Your task to perform on an android device: Show me recent news Image 0: 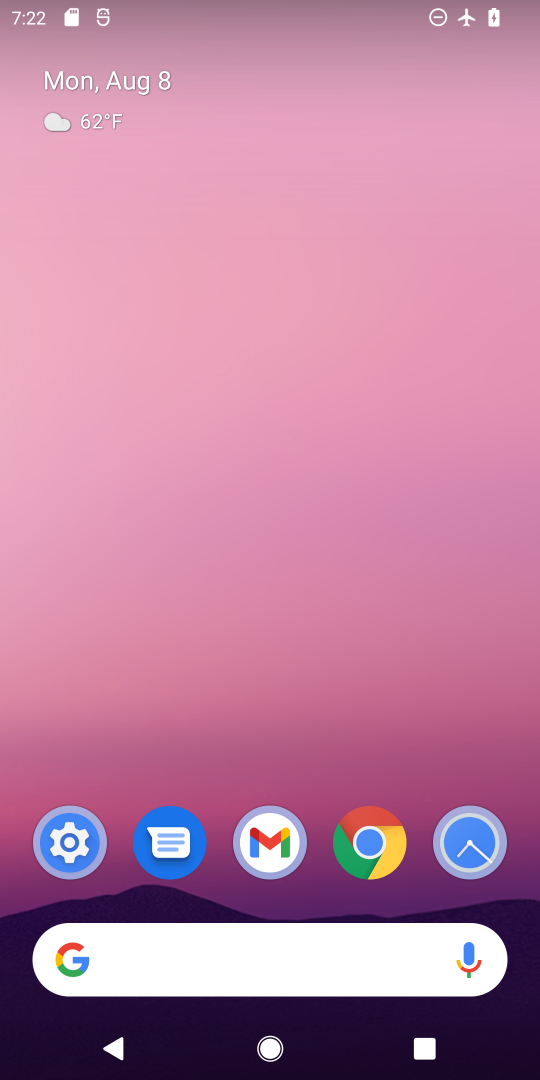
Step 0: click (289, 942)
Your task to perform on an android device: Show me recent news Image 1: 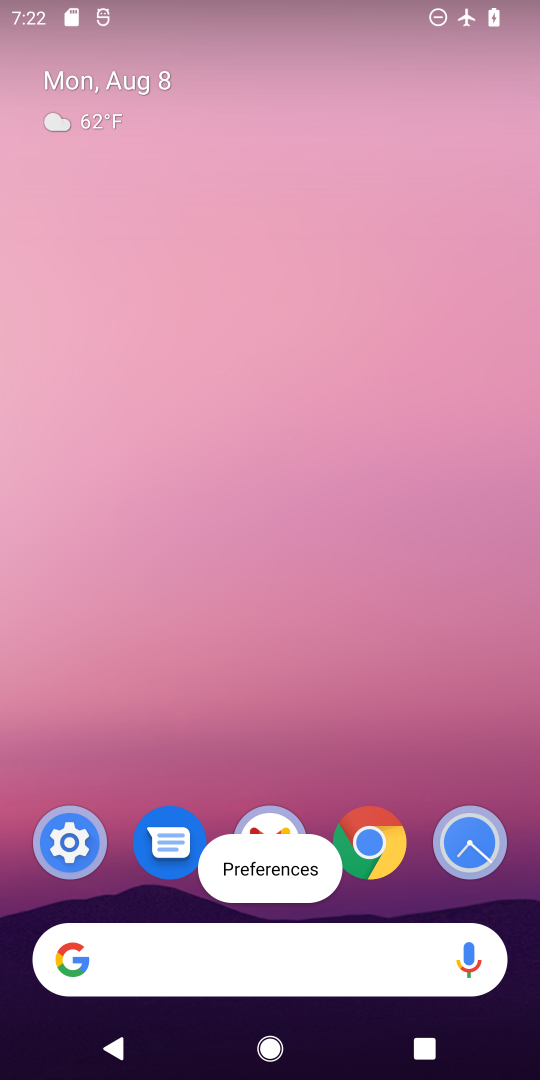
Step 1: click (351, 929)
Your task to perform on an android device: Show me recent news Image 2: 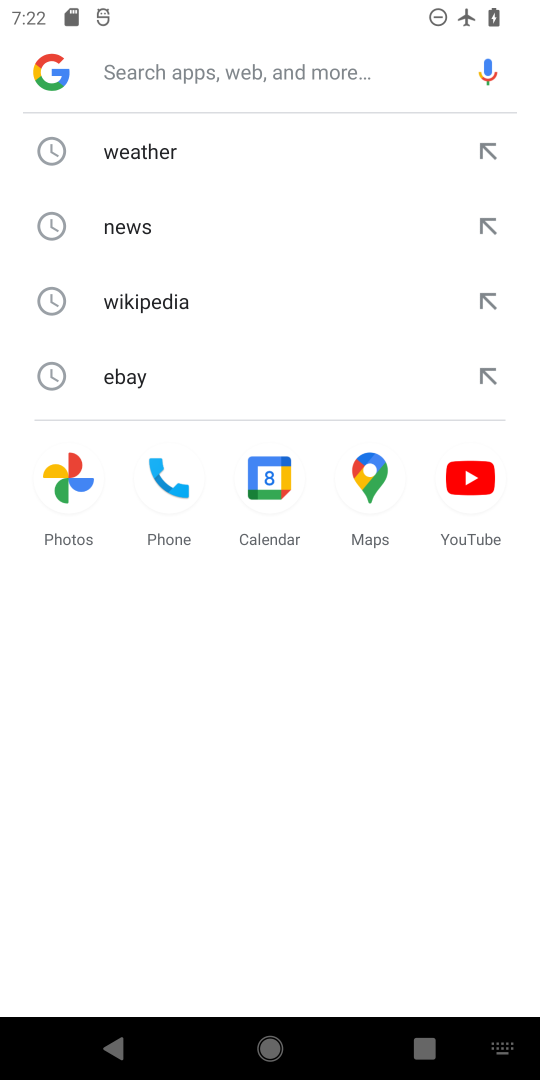
Step 2: click (102, 215)
Your task to perform on an android device: Show me recent news Image 3: 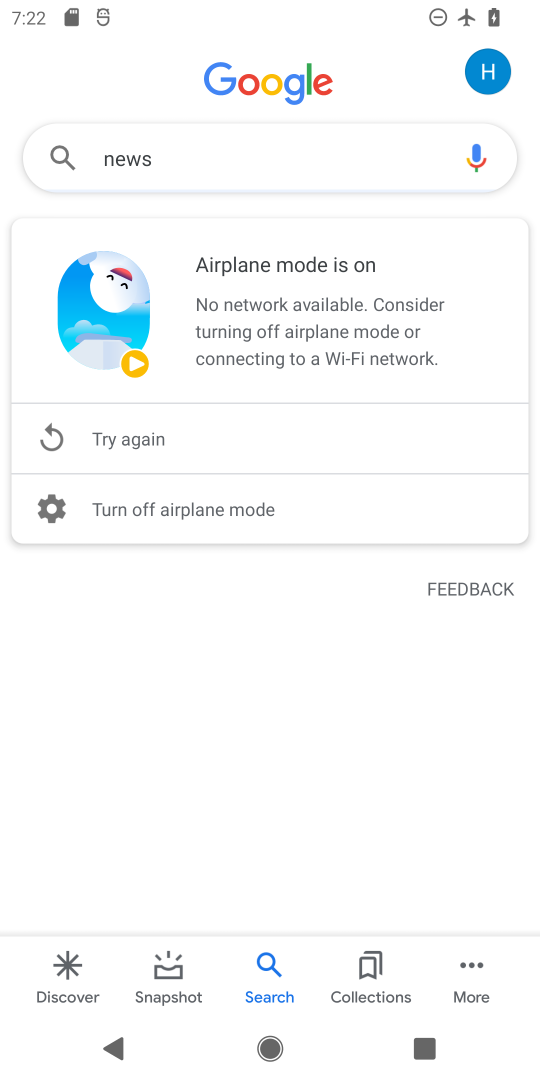
Step 3: click (101, 432)
Your task to perform on an android device: Show me recent news Image 4: 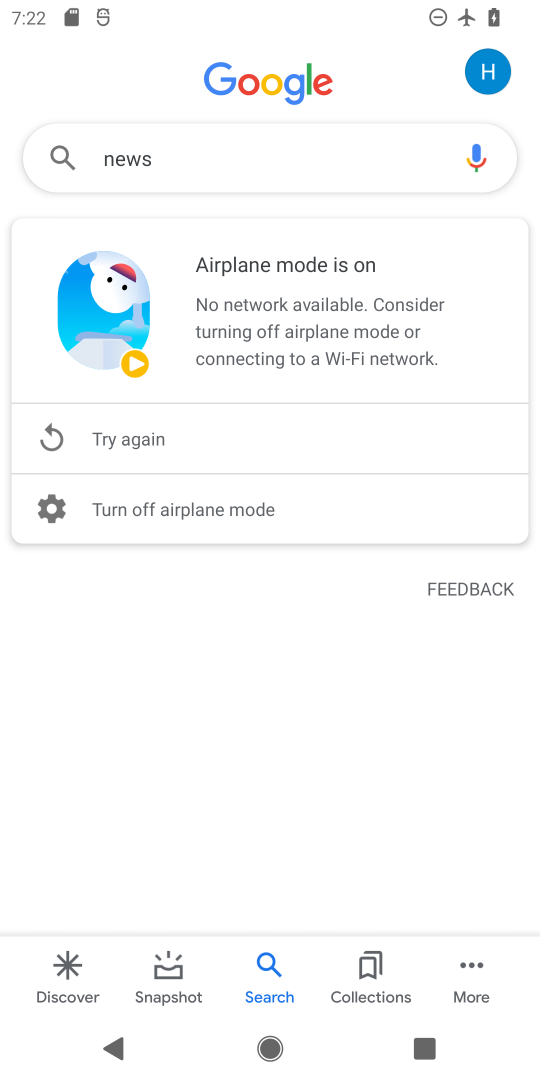
Step 4: task complete